Your task to perform on an android device: Open eBay Image 0: 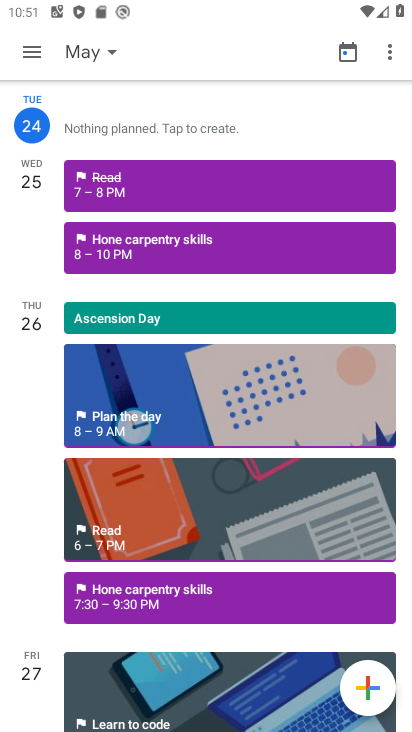
Step 0: press home button
Your task to perform on an android device: Open eBay Image 1: 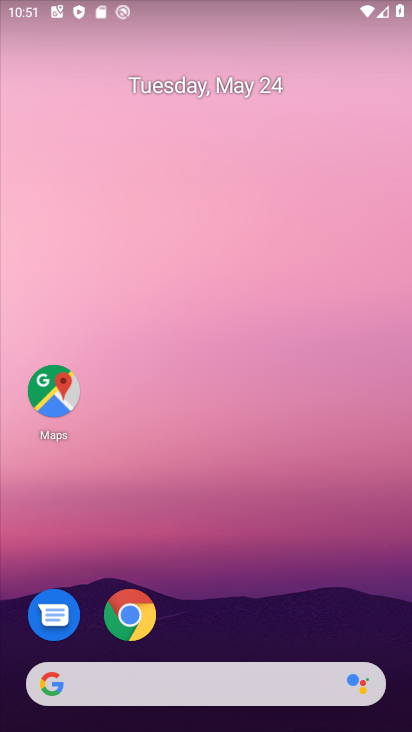
Step 1: click (135, 615)
Your task to perform on an android device: Open eBay Image 2: 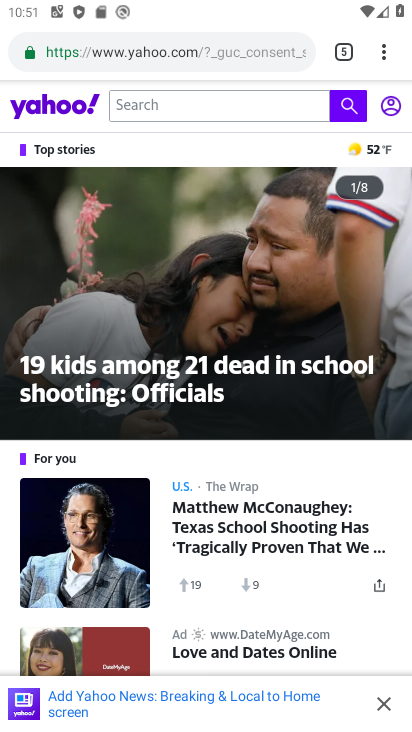
Step 2: click (336, 50)
Your task to perform on an android device: Open eBay Image 3: 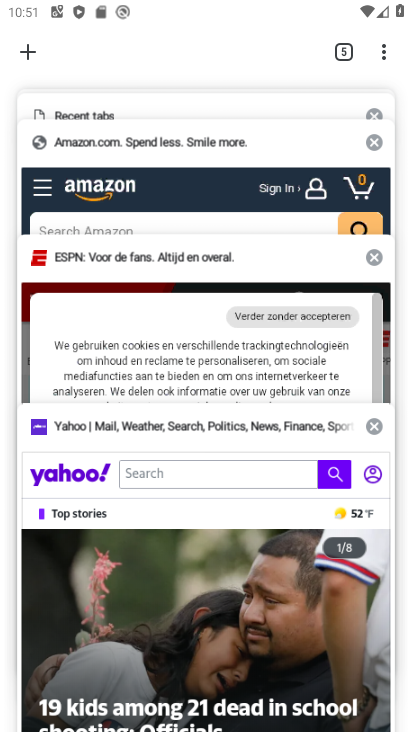
Step 3: click (340, 47)
Your task to perform on an android device: Open eBay Image 4: 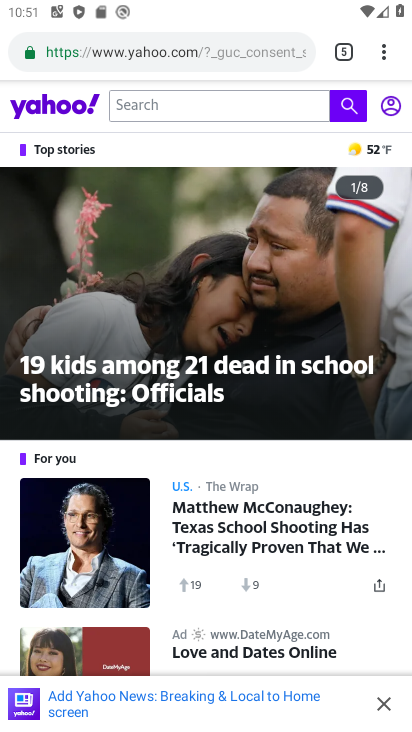
Step 4: click (340, 47)
Your task to perform on an android device: Open eBay Image 5: 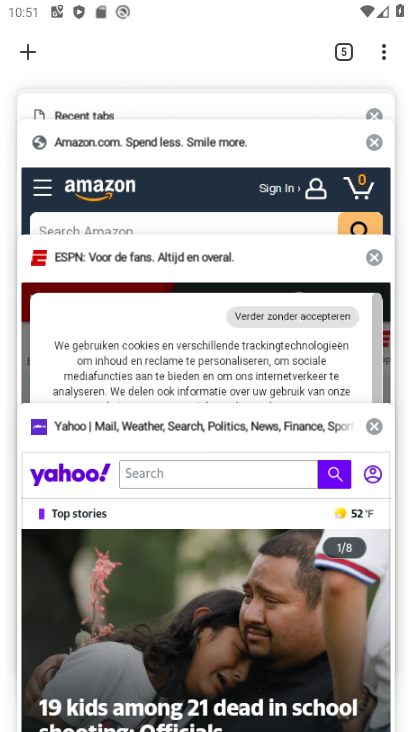
Step 5: click (190, 149)
Your task to perform on an android device: Open eBay Image 6: 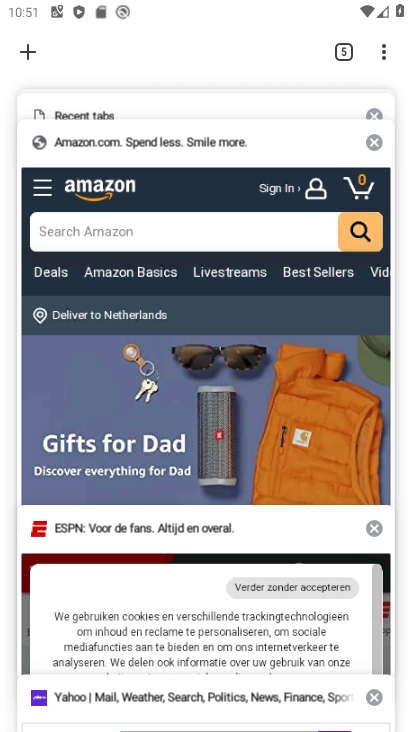
Step 6: drag from (192, 145) to (171, 287)
Your task to perform on an android device: Open eBay Image 7: 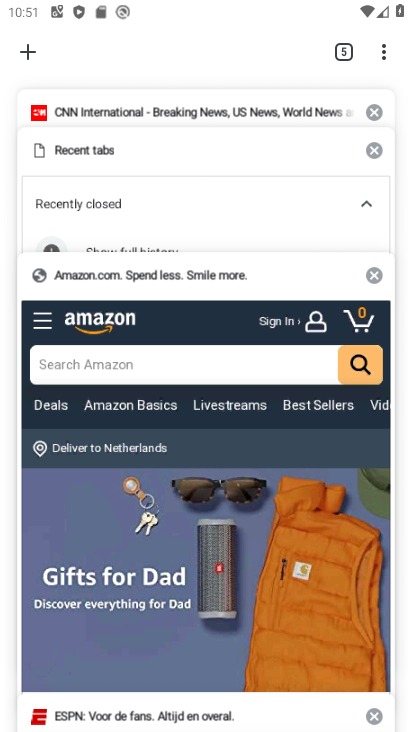
Step 7: drag from (224, 85) to (208, 404)
Your task to perform on an android device: Open eBay Image 8: 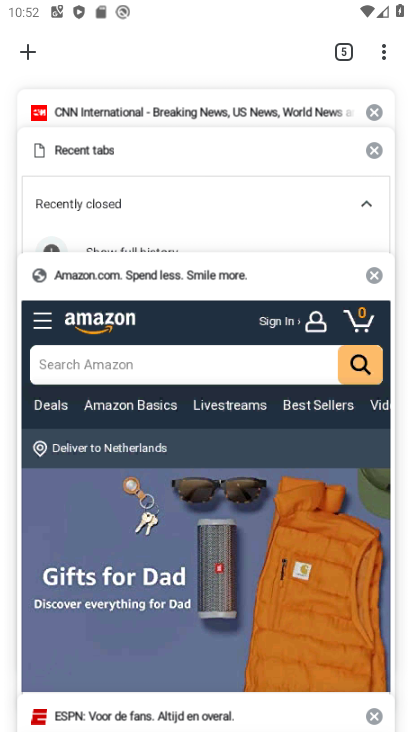
Step 8: drag from (214, 115) to (172, 642)
Your task to perform on an android device: Open eBay Image 9: 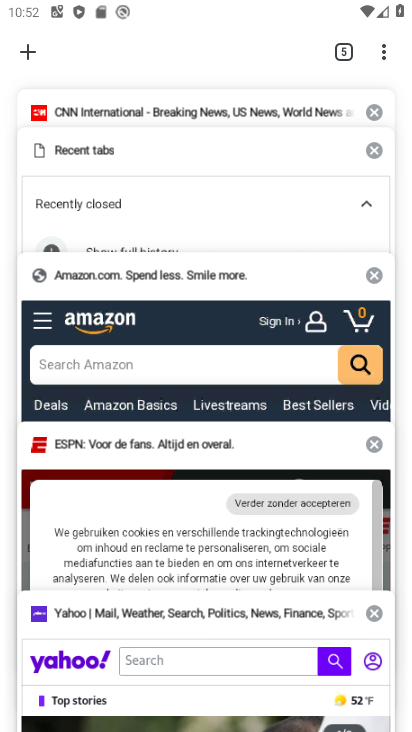
Step 9: drag from (112, 158) to (139, 623)
Your task to perform on an android device: Open eBay Image 10: 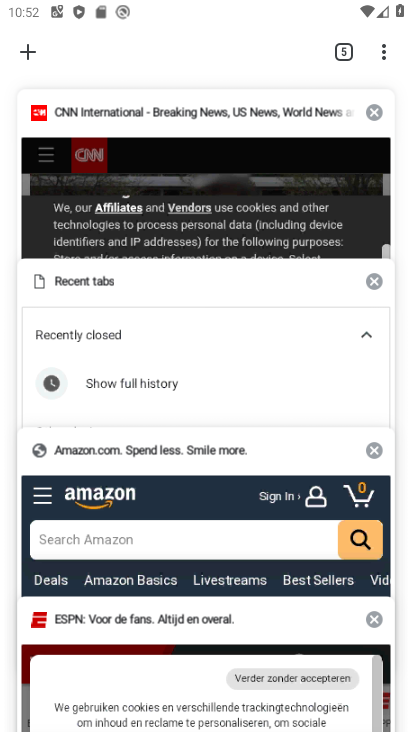
Step 10: drag from (107, 174) to (181, 543)
Your task to perform on an android device: Open eBay Image 11: 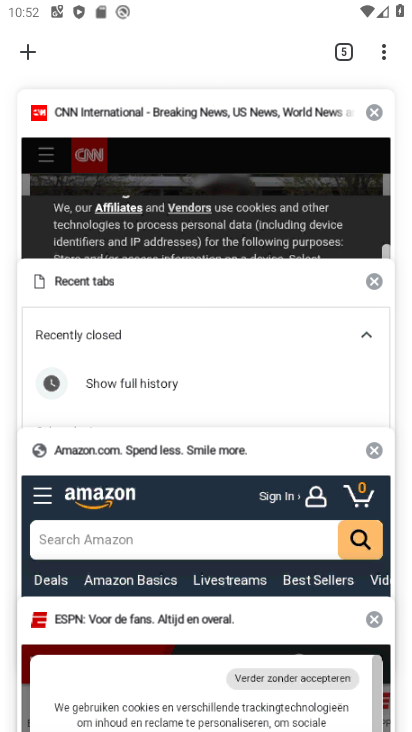
Step 11: click (29, 58)
Your task to perform on an android device: Open eBay Image 12: 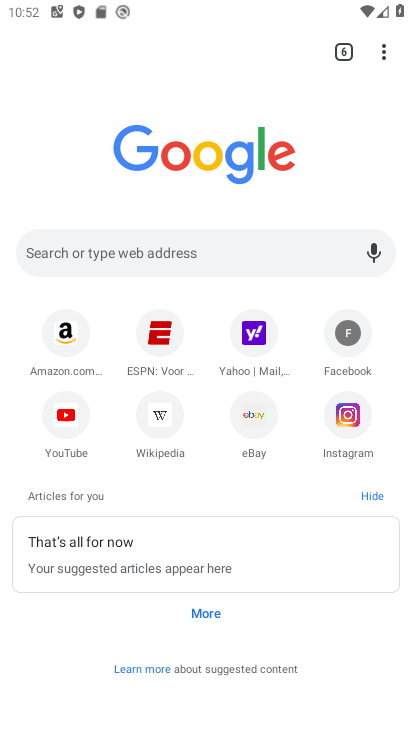
Step 12: click (249, 414)
Your task to perform on an android device: Open eBay Image 13: 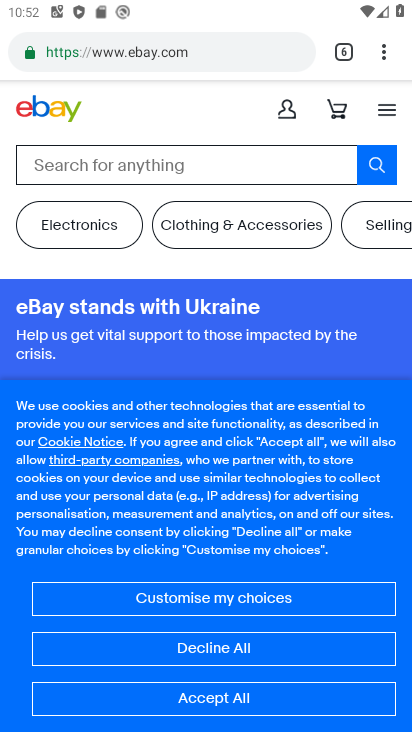
Step 13: task complete